Your task to perform on an android device: Search for Mexican restaurants on Maps Image 0: 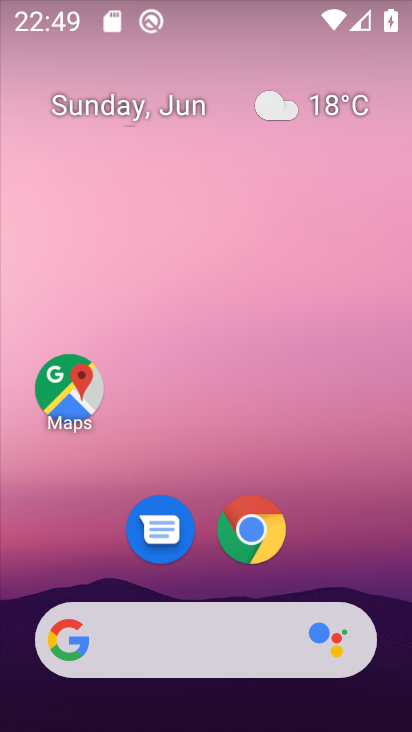
Step 0: click (82, 363)
Your task to perform on an android device: Search for Mexican restaurants on Maps Image 1: 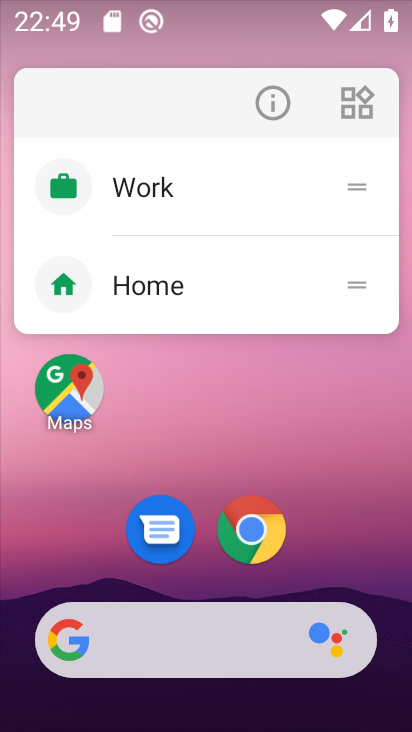
Step 1: click (72, 383)
Your task to perform on an android device: Search for Mexican restaurants on Maps Image 2: 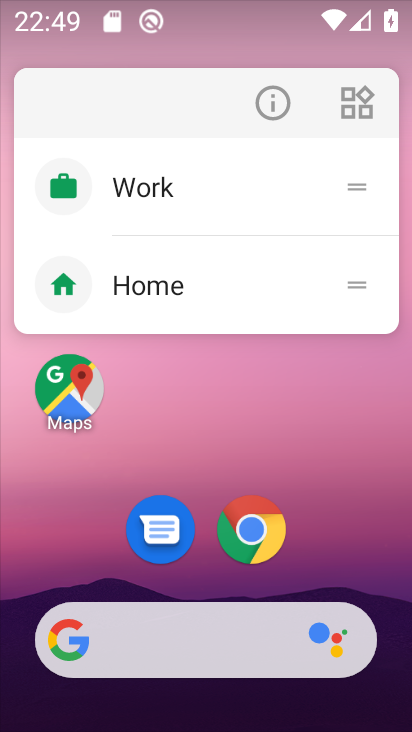
Step 2: click (55, 386)
Your task to perform on an android device: Search for Mexican restaurants on Maps Image 3: 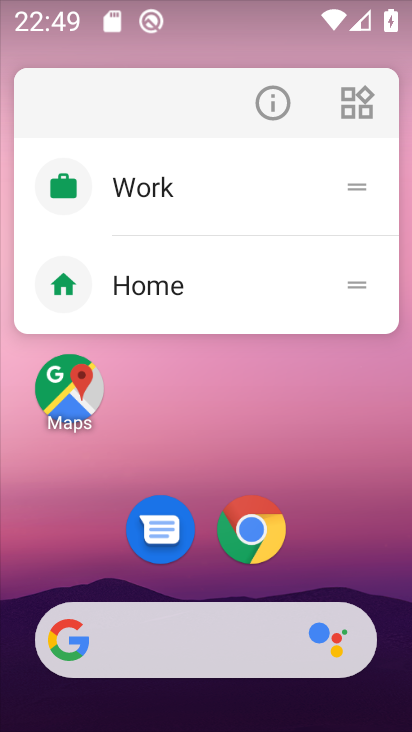
Step 3: click (100, 392)
Your task to perform on an android device: Search for Mexican restaurants on Maps Image 4: 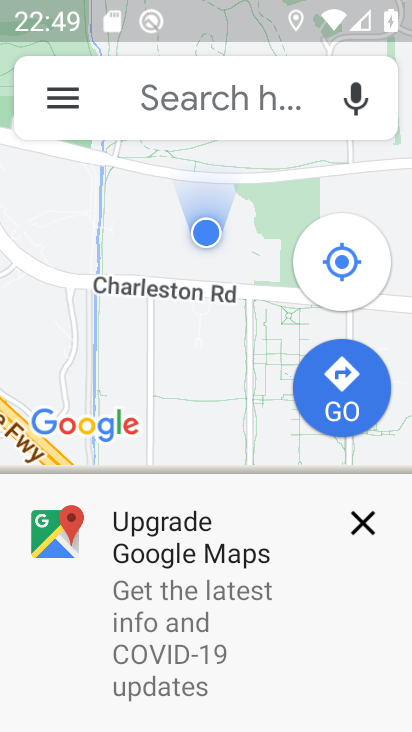
Step 4: click (212, 118)
Your task to perform on an android device: Search for Mexican restaurants on Maps Image 5: 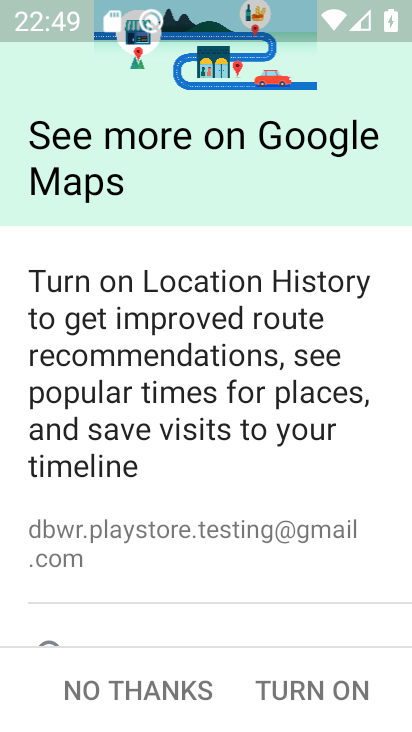
Step 5: click (178, 695)
Your task to perform on an android device: Search for Mexican restaurants on Maps Image 6: 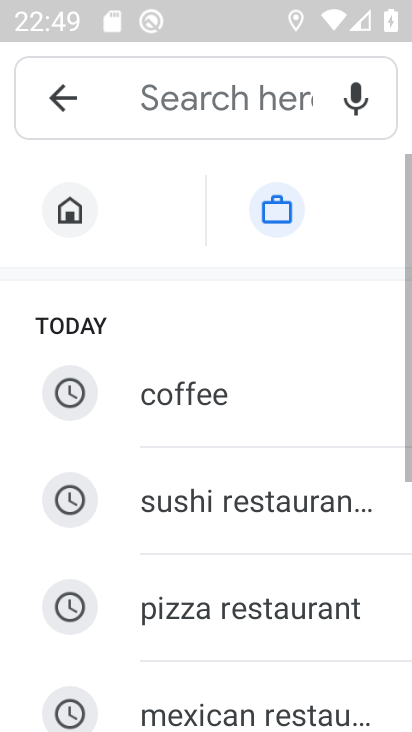
Step 6: click (212, 104)
Your task to perform on an android device: Search for Mexican restaurants on Maps Image 7: 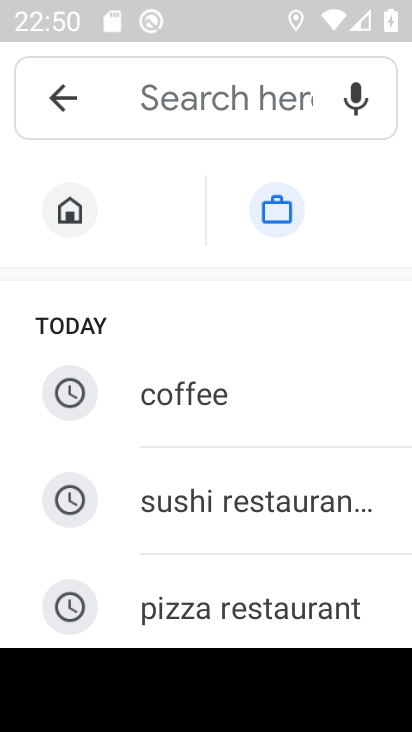
Step 7: type "Mexican restaurants"
Your task to perform on an android device: Search for Mexican restaurants on Maps Image 8: 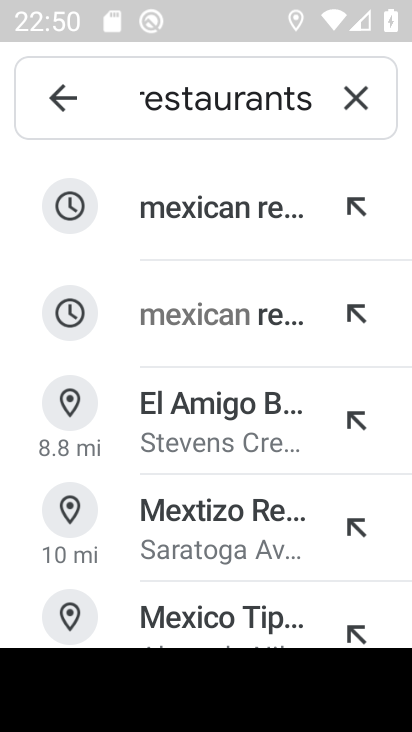
Step 8: click (199, 220)
Your task to perform on an android device: Search for Mexican restaurants on Maps Image 9: 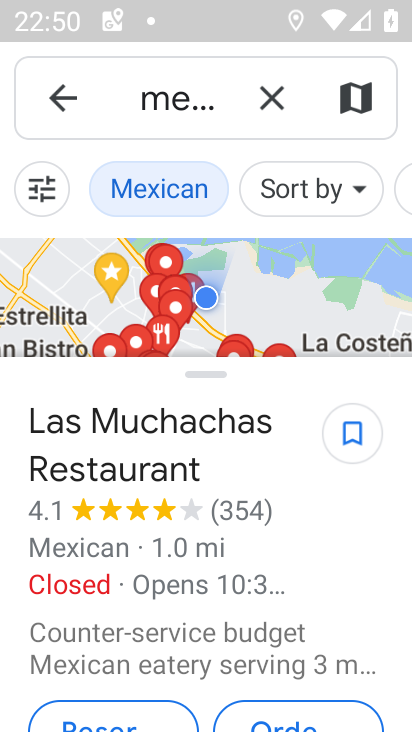
Step 9: task complete